Your task to perform on an android device: Search for pizza restaurants on Maps Image 0: 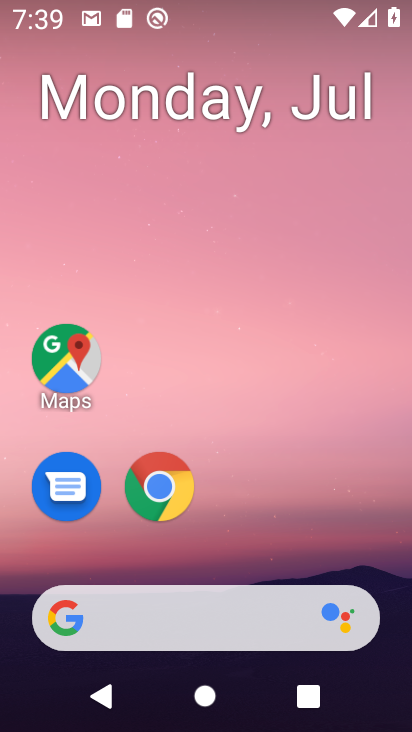
Step 0: drag from (389, 542) to (375, 160)
Your task to perform on an android device: Search for pizza restaurants on Maps Image 1: 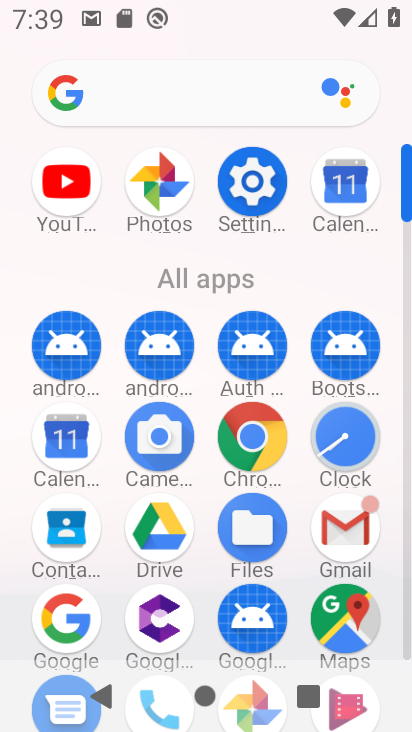
Step 1: drag from (393, 480) to (401, 159)
Your task to perform on an android device: Search for pizza restaurants on Maps Image 2: 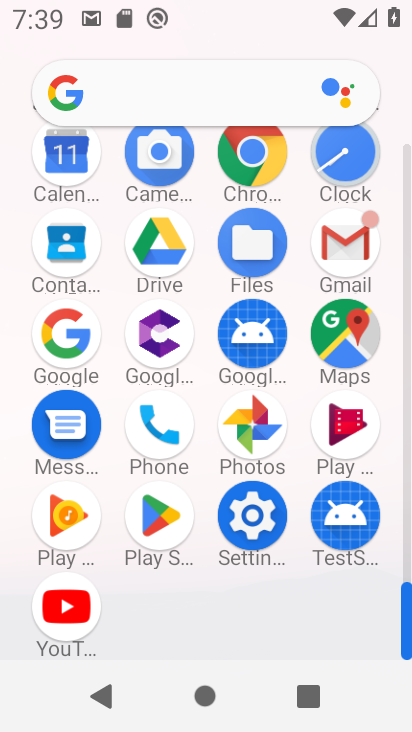
Step 2: click (356, 339)
Your task to perform on an android device: Search for pizza restaurants on Maps Image 3: 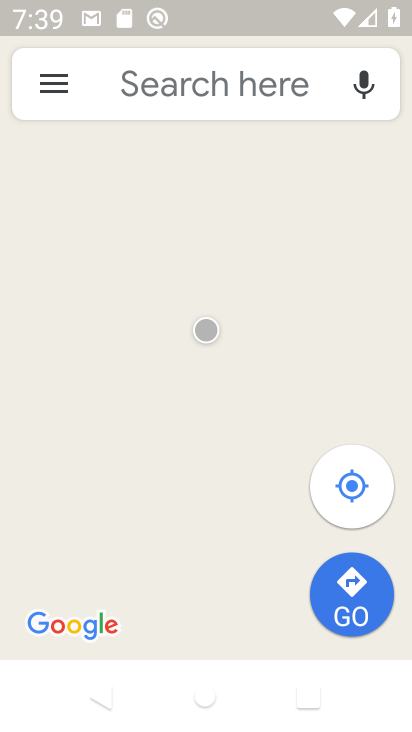
Step 3: click (246, 104)
Your task to perform on an android device: Search for pizza restaurants on Maps Image 4: 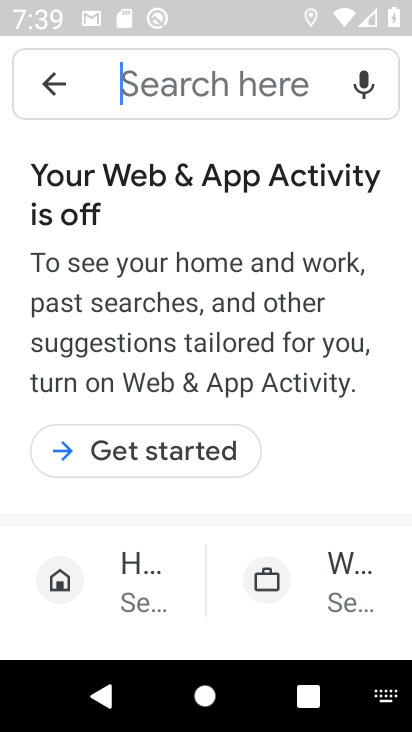
Step 4: type "pizza restaurants"
Your task to perform on an android device: Search for pizza restaurants on Maps Image 5: 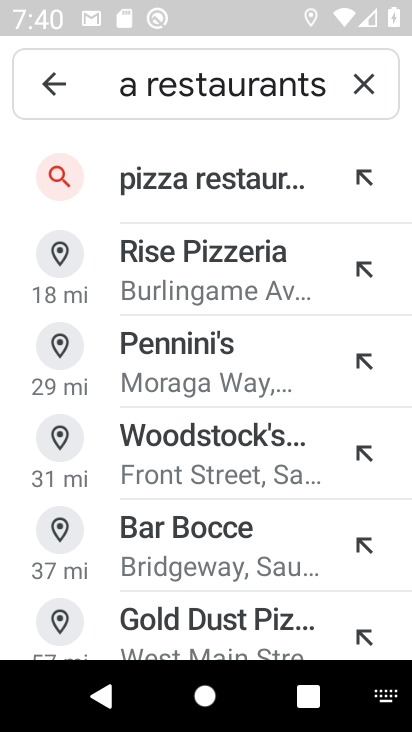
Step 5: click (258, 182)
Your task to perform on an android device: Search for pizza restaurants on Maps Image 6: 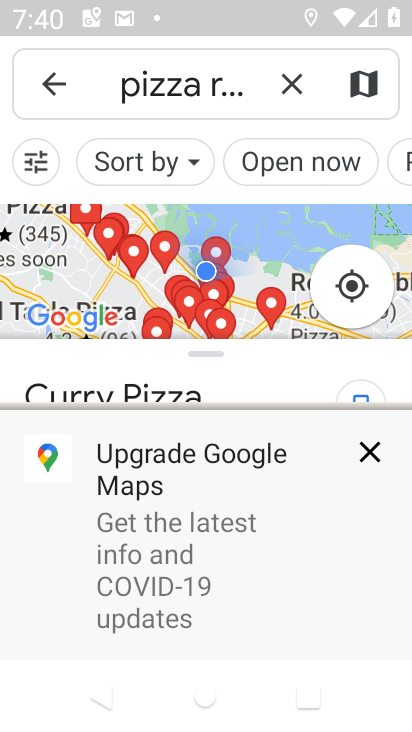
Step 6: task complete